Your task to perform on an android device: turn off picture-in-picture Image 0: 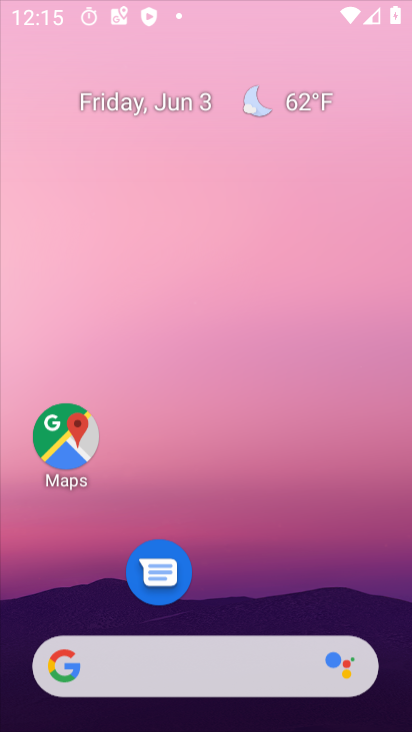
Step 0: drag from (306, 612) to (291, 98)
Your task to perform on an android device: turn off picture-in-picture Image 1: 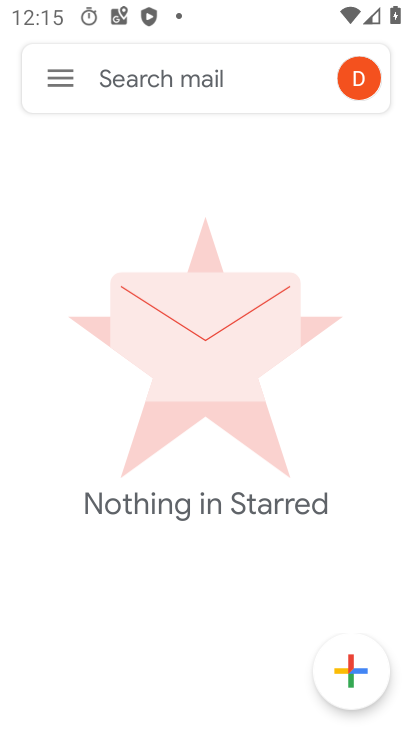
Step 1: press home button
Your task to perform on an android device: turn off picture-in-picture Image 2: 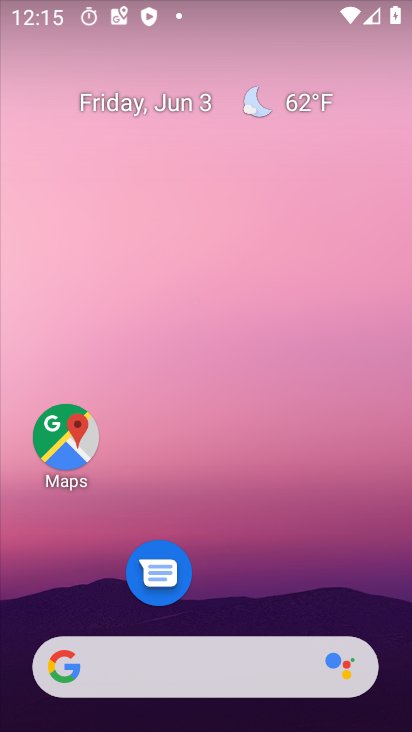
Step 2: drag from (291, 607) to (279, 152)
Your task to perform on an android device: turn off picture-in-picture Image 3: 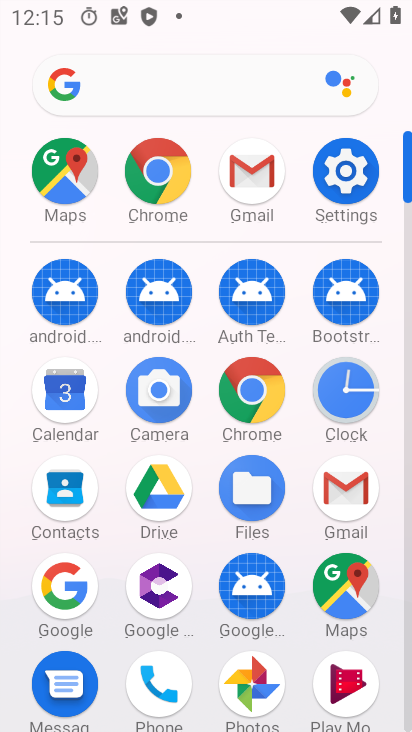
Step 3: click (340, 177)
Your task to perform on an android device: turn off picture-in-picture Image 4: 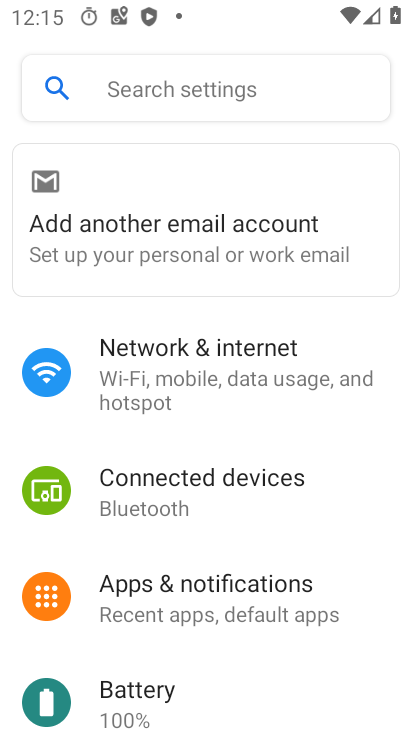
Step 4: drag from (230, 647) to (260, 133)
Your task to perform on an android device: turn off picture-in-picture Image 5: 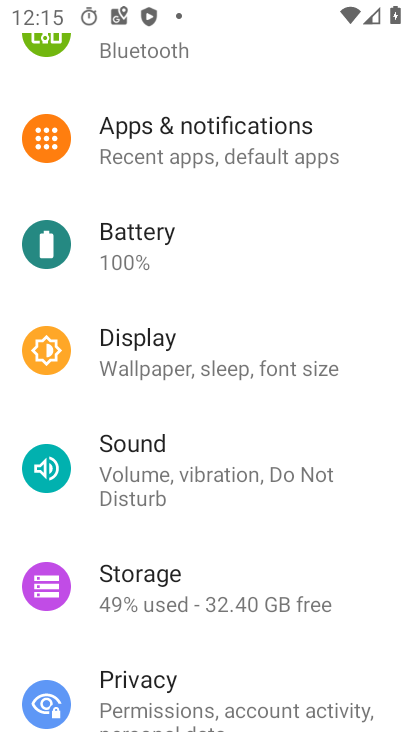
Step 5: drag from (195, 657) to (190, 254)
Your task to perform on an android device: turn off picture-in-picture Image 6: 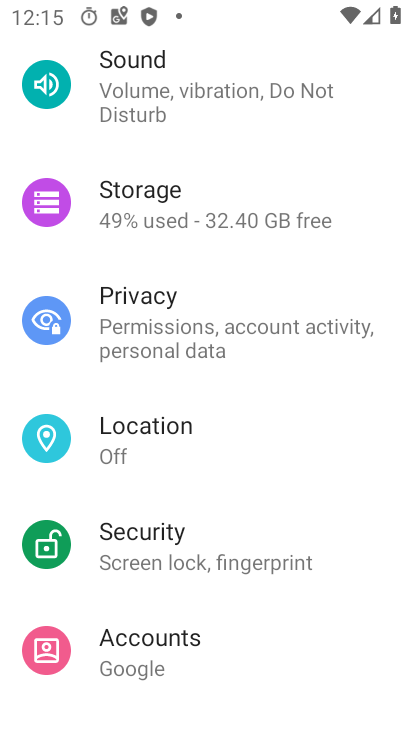
Step 6: click (220, 692)
Your task to perform on an android device: turn off picture-in-picture Image 7: 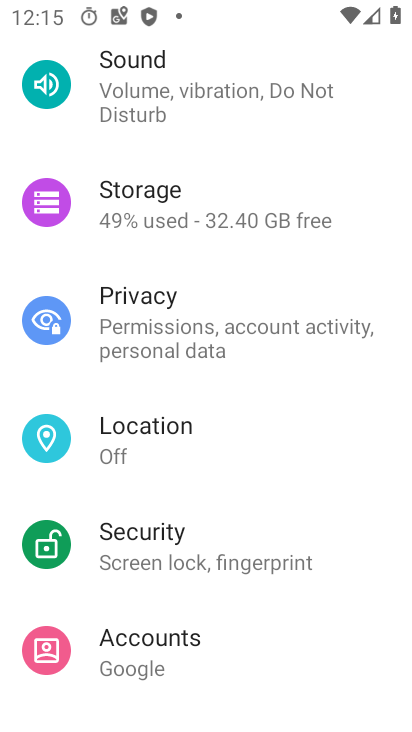
Step 7: press back button
Your task to perform on an android device: turn off picture-in-picture Image 8: 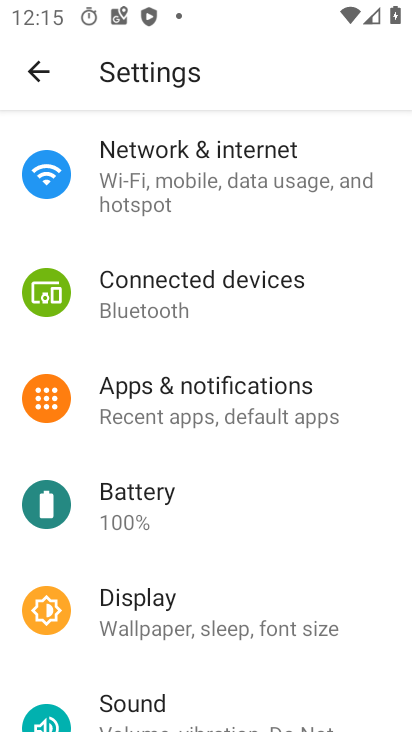
Step 8: drag from (259, 560) to (247, 117)
Your task to perform on an android device: turn off picture-in-picture Image 9: 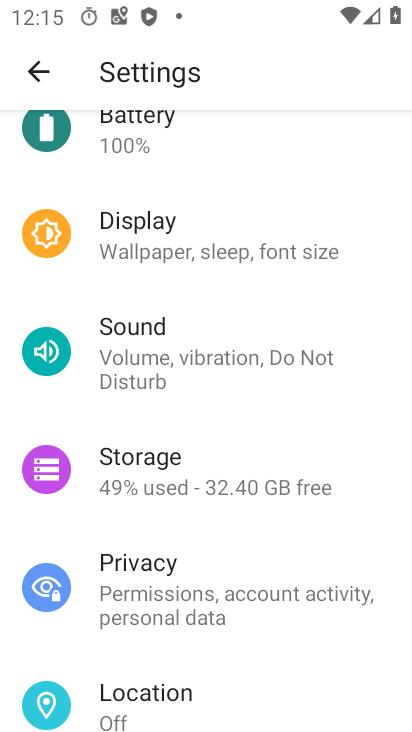
Step 9: drag from (257, 677) to (227, 170)
Your task to perform on an android device: turn off picture-in-picture Image 10: 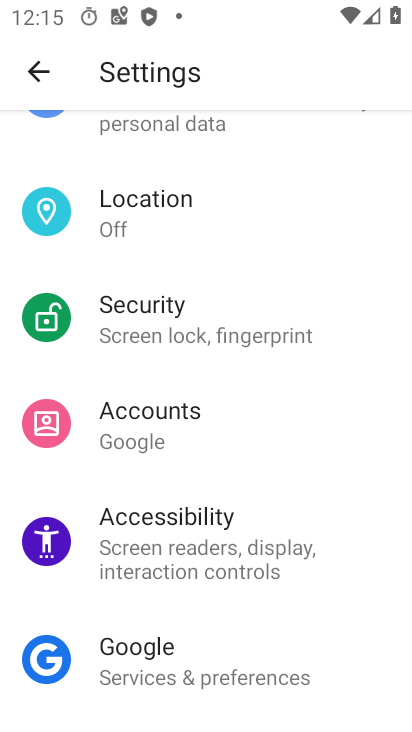
Step 10: drag from (299, 166) to (315, 676)
Your task to perform on an android device: turn off picture-in-picture Image 11: 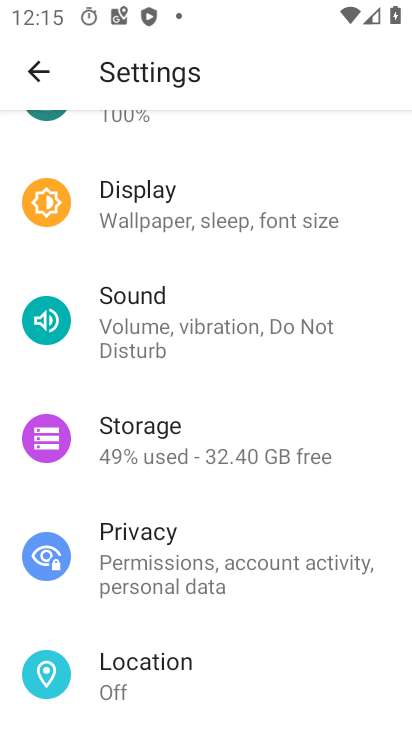
Step 11: drag from (292, 257) to (266, 639)
Your task to perform on an android device: turn off picture-in-picture Image 12: 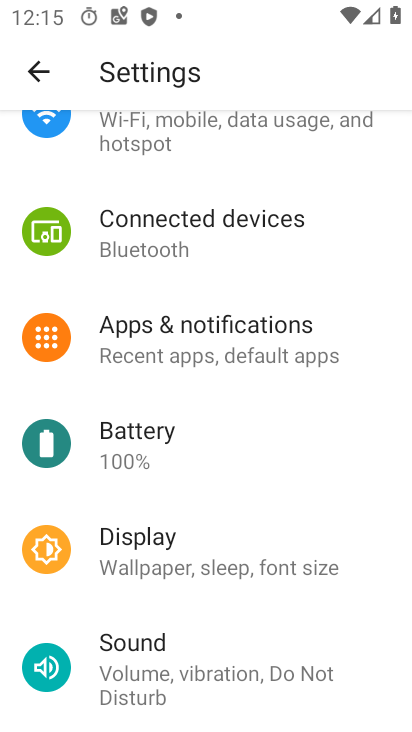
Step 12: click (269, 354)
Your task to perform on an android device: turn off picture-in-picture Image 13: 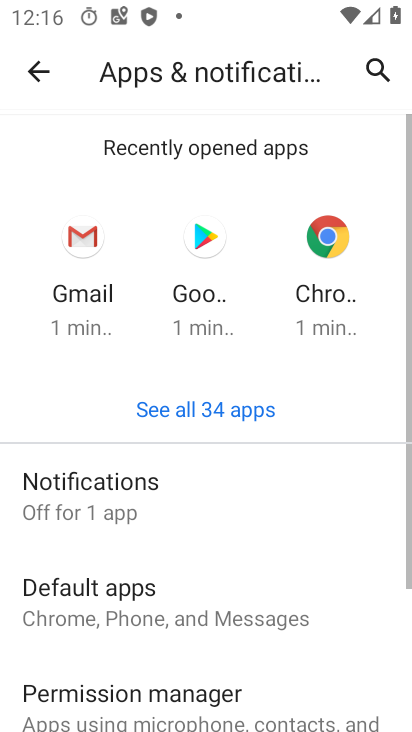
Step 13: drag from (249, 574) to (243, 122)
Your task to perform on an android device: turn off picture-in-picture Image 14: 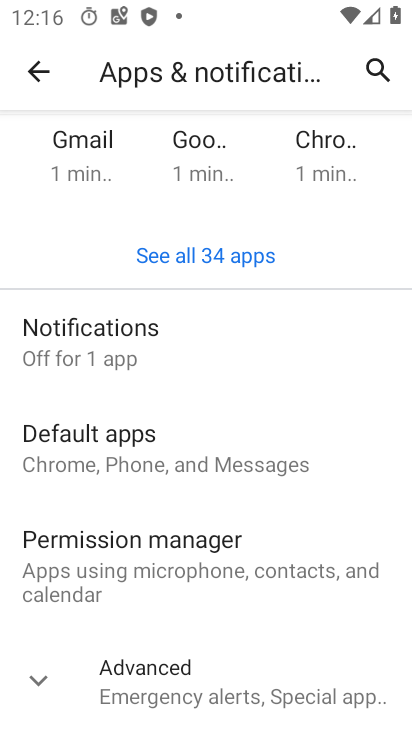
Step 14: click (193, 671)
Your task to perform on an android device: turn off picture-in-picture Image 15: 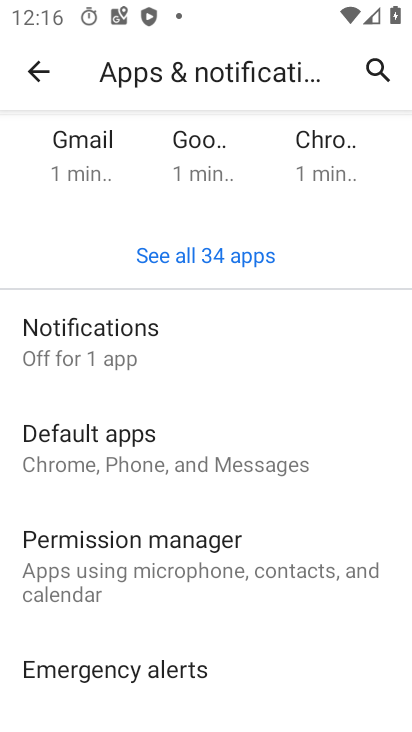
Step 15: drag from (188, 650) to (184, 317)
Your task to perform on an android device: turn off picture-in-picture Image 16: 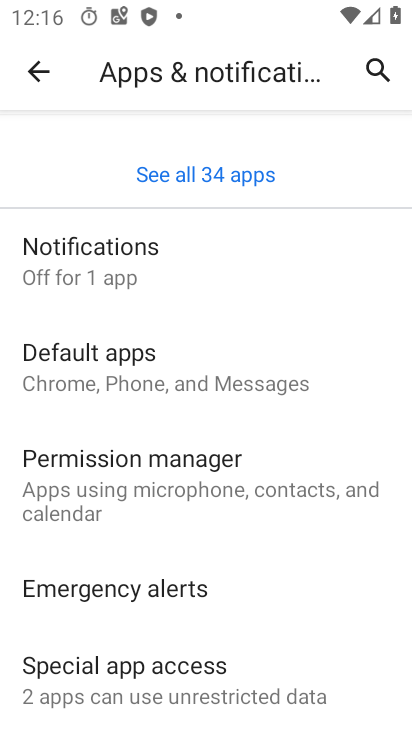
Step 16: click (190, 673)
Your task to perform on an android device: turn off picture-in-picture Image 17: 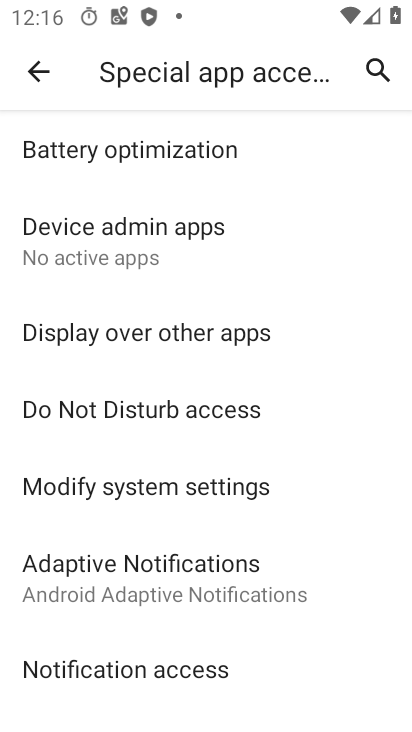
Step 17: drag from (178, 685) to (176, 277)
Your task to perform on an android device: turn off picture-in-picture Image 18: 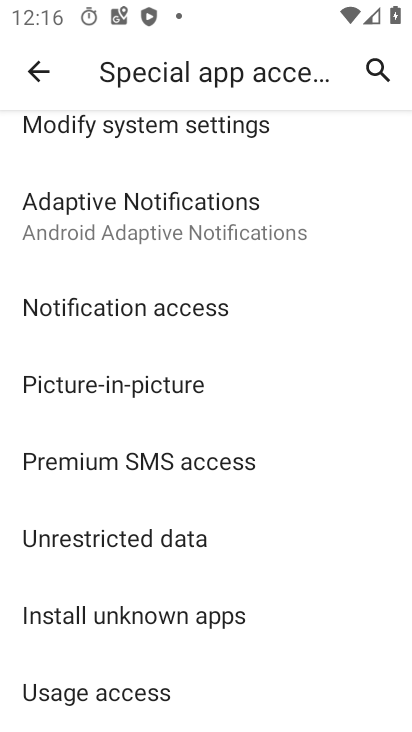
Step 18: click (186, 396)
Your task to perform on an android device: turn off picture-in-picture Image 19: 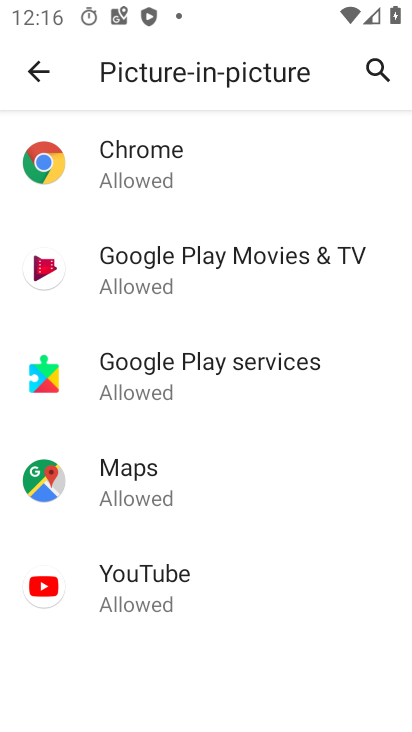
Step 19: task complete